Your task to perform on an android device: check the backup settings in the google photos Image 0: 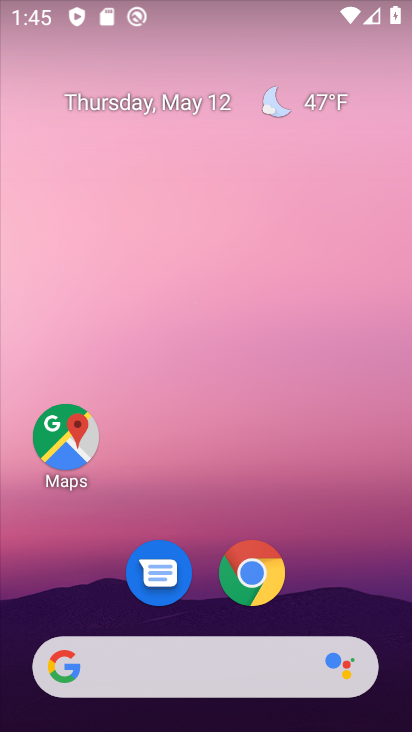
Step 0: drag from (213, 611) to (245, 185)
Your task to perform on an android device: check the backup settings in the google photos Image 1: 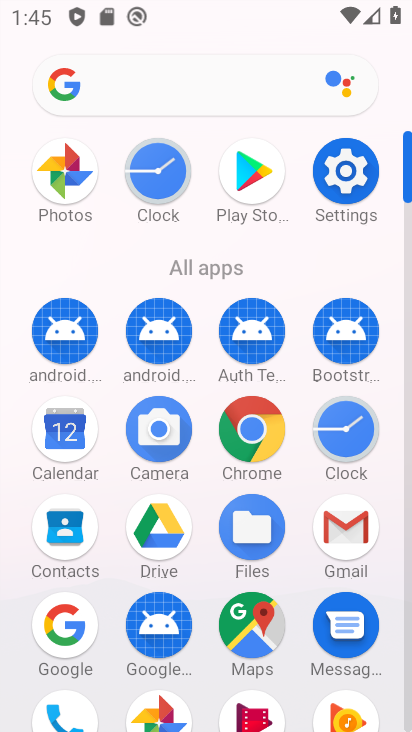
Step 1: click (76, 175)
Your task to perform on an android device: check the backup settings in the google photos Image 2: 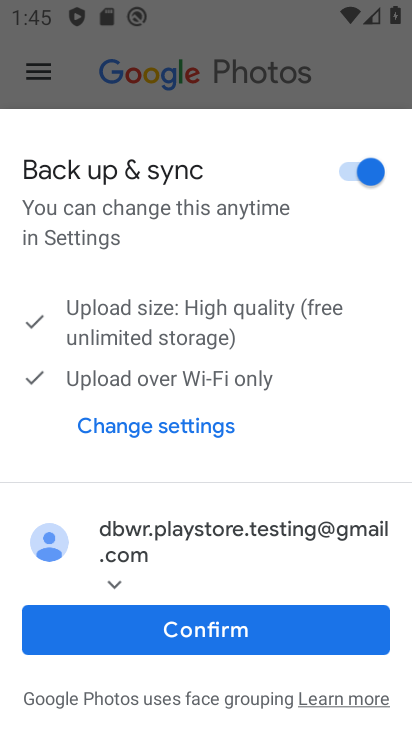
Step 2: click (150, 434)
Your task to perform on an android device: check the backup settings in the google photos Image 3: 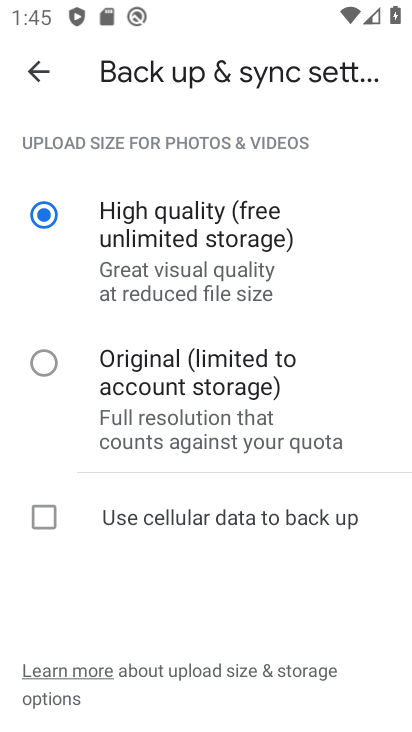
Step 3: task complete